Your task to perform on an android device: toggle sleep mode Image 0: 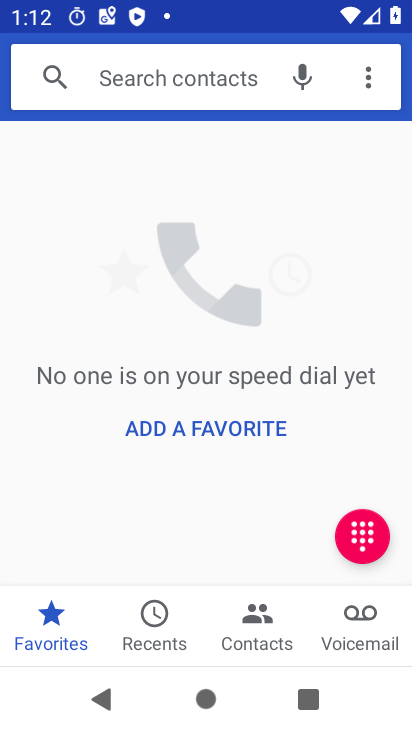
Step 0: press home button
Your task to perform on an android device: toggle sleep mode Image 1: 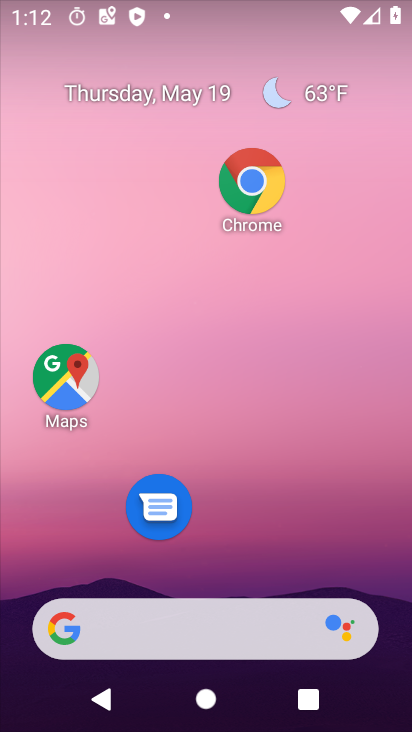
Step 1: drag from (208, 458) to (231, 37)
Your task to perform on an android device: toggle sleep mode Image 2: 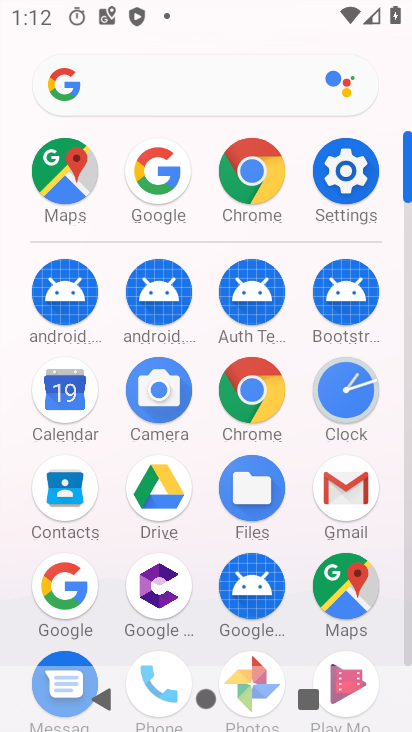
Step 2: click (345, 181)
Your task to perform on an android device: toggle sleep mode Image 3: 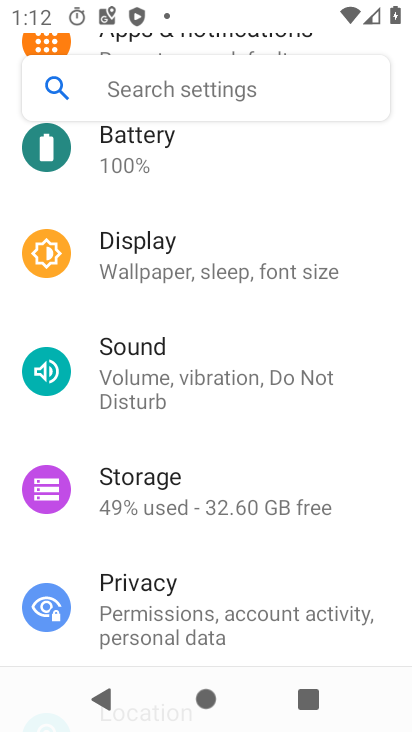
Step 3: task complete